Your task to perform on an android device: turn on notifications settings in the gmail app Image 0: 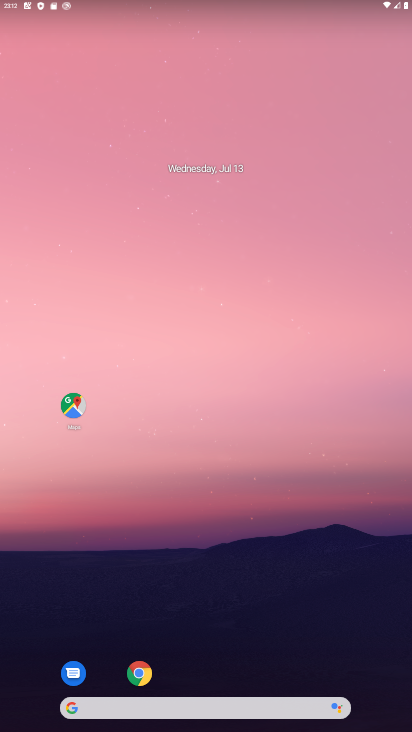
Step 0: drag from (208, 666) to (190, 164)
Your task to perform on an android device: turn on notifications settings in the gmail app Image 1: 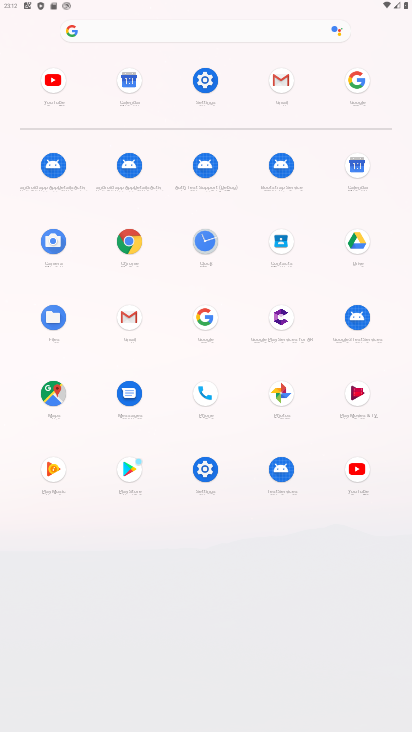
Step 1: click (130, 320)
Your task to perform on an android device: turn on notifications settings in the gmail app Image 2: 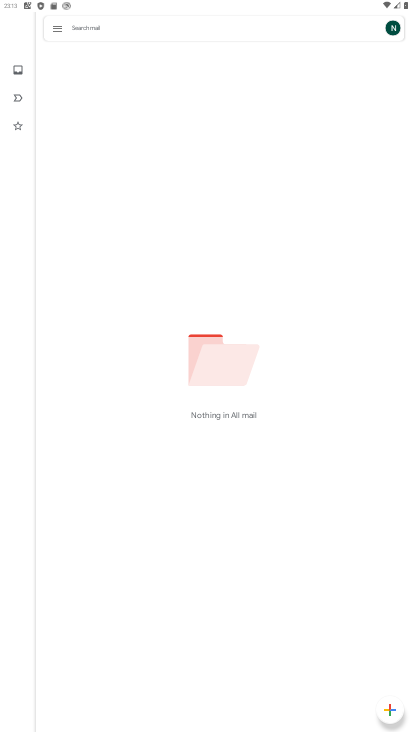
Step 2: click (61, 22)
Your task to perform on an android device: turn on notifications settings in the gmail app Image 3: 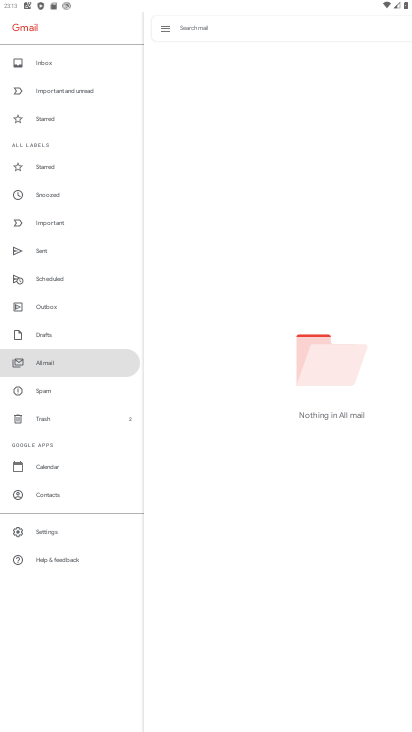
Step 3: click (57, 536)
Your task to perform on an android device: turn on notifications settings in the gmail app Image 4: 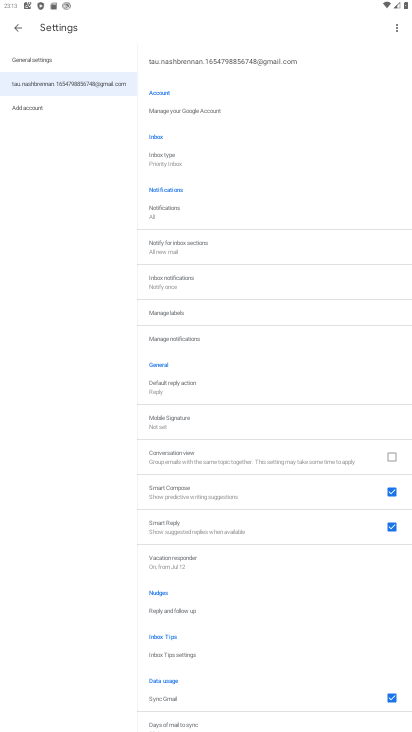
Step 4: click (213, 343)
Your task to perform on an android device: turn on notifications settings in the gmail app Image 5: 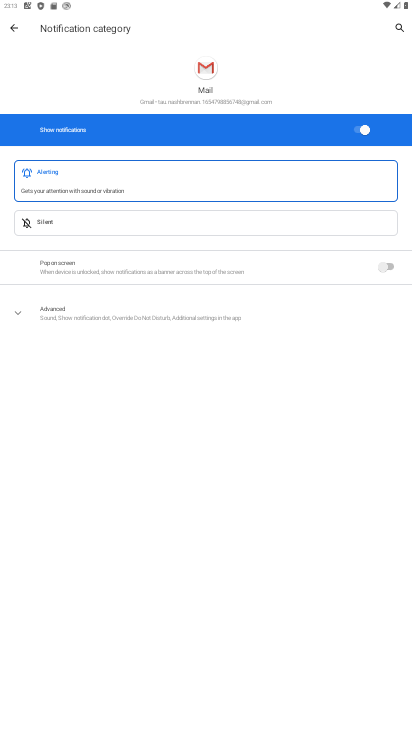
Step 5: task complete